Your task to perform on an android device: See recent photos Image 0: 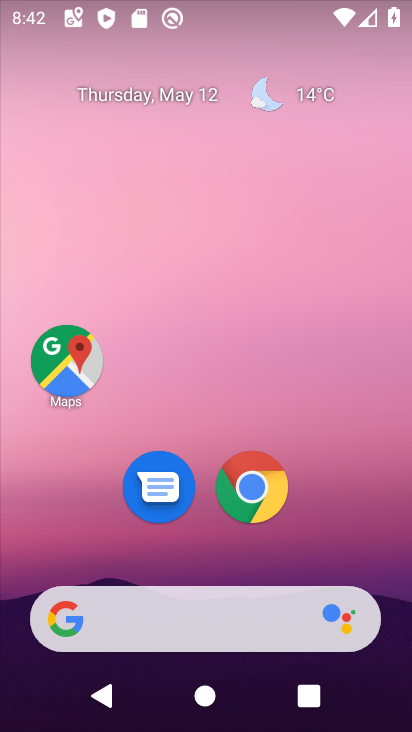
Step 0: press home button
Your task to perform on an android device: See recent photos Image 1: 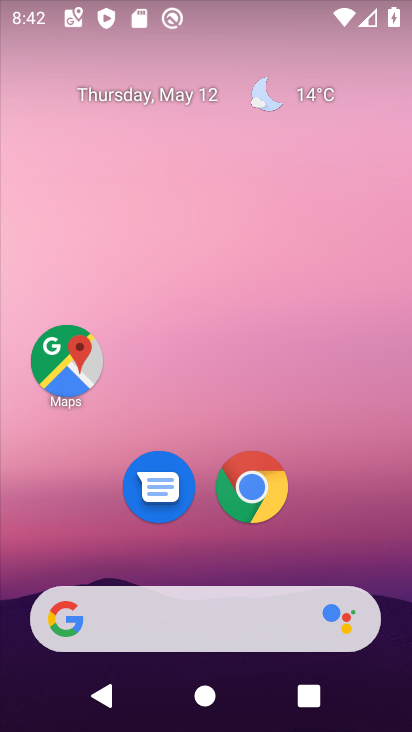
Step 1: drag from (90, 575) to (337, 122)
Your task to perform on an android device: See recent photos Image 2: 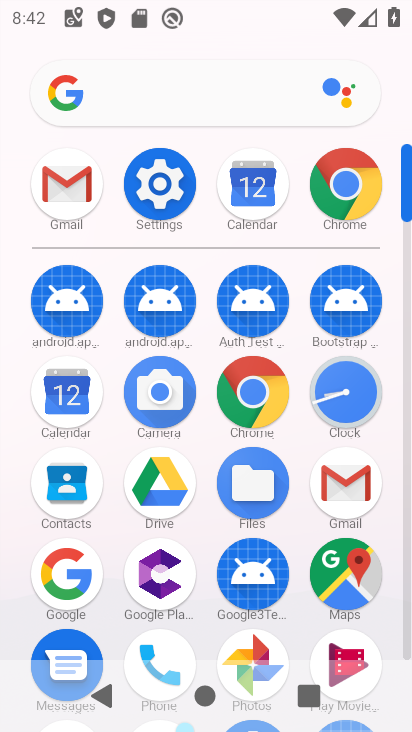
Step 2: click (243, 643)
Your task to perform on an android device: See recent photos Image 3: 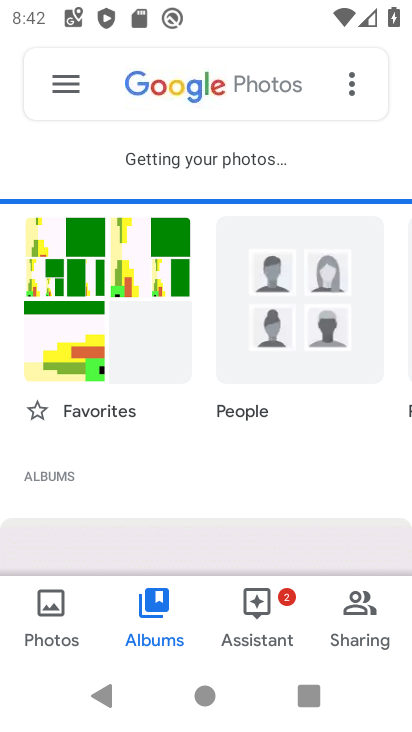
Step 3: click (41, 603)
Your task to perform on an android device: See recent photos Image 4: 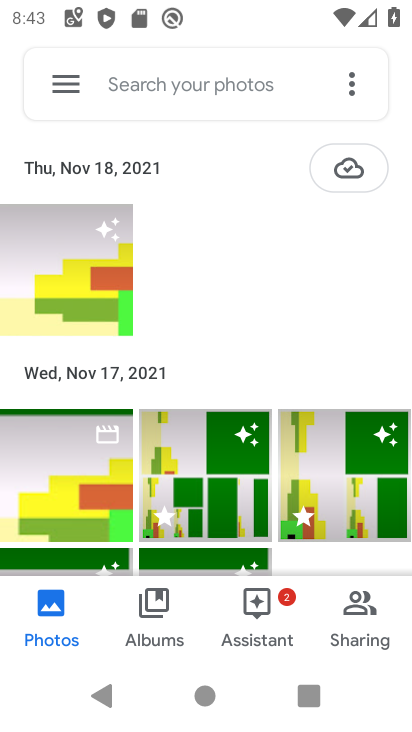
Step 4: task complete